Your task to perform on an android device: turn pop-ups on in chrome Image 0: 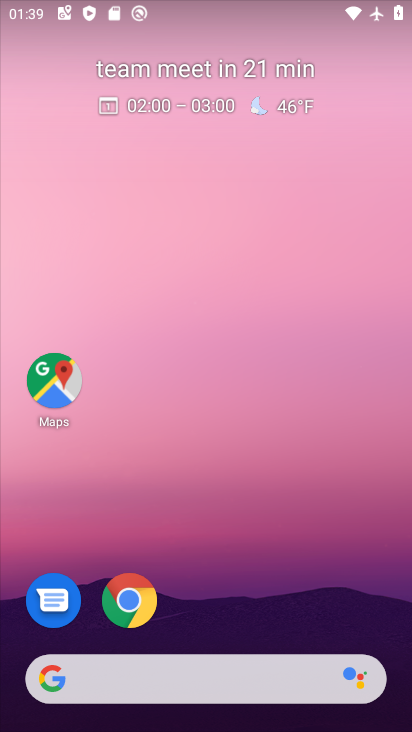
Step 0: drag from (202, 455) to (178, 93)
Your task to perform on an android device: turn pop-ups on in chrome Image 1: 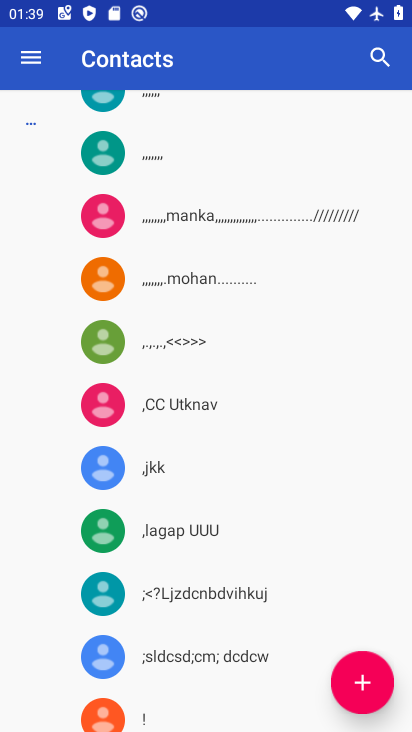
Step 1: press home button
Your task to perform on an android device: turn pop-ups on in chrome Image 2: 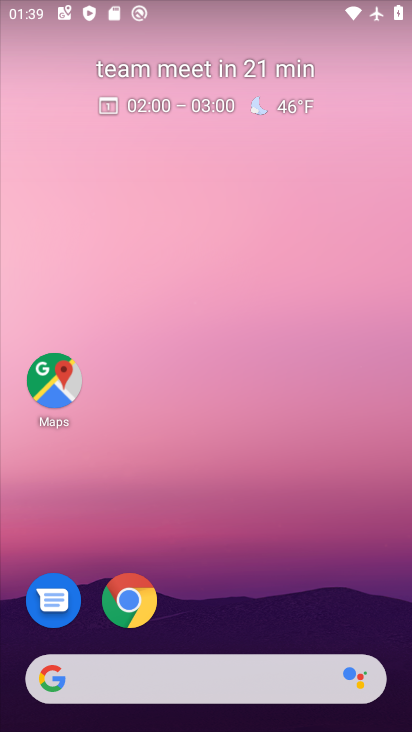
Step 2: click (149, 593)
Your task to perform on an android device: turn pop-ups on in chrome Image 3: 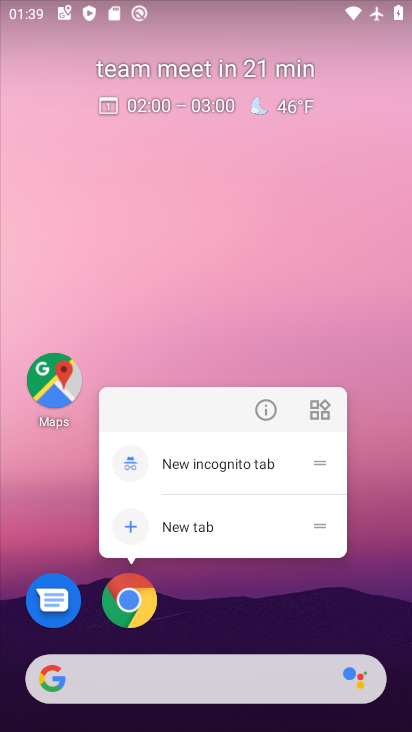
Step 3: click (135, 605)
Your task to perform on an android device: turn pop-ups on in chrome Image 4: 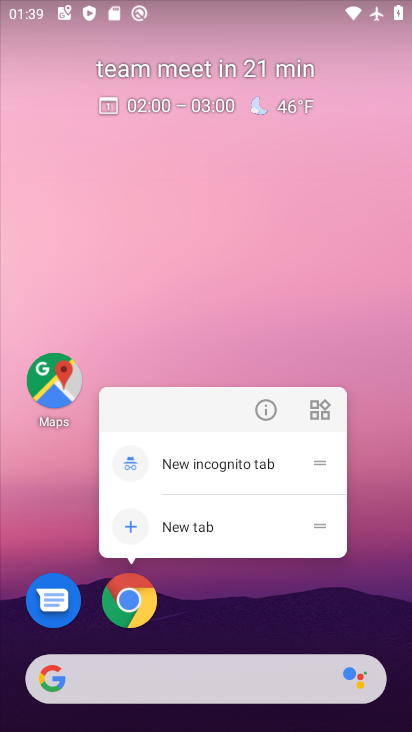
Step 4: click (129, 607)
Your task to perform on an android device: turn pop-ups on in chrome Image 5: 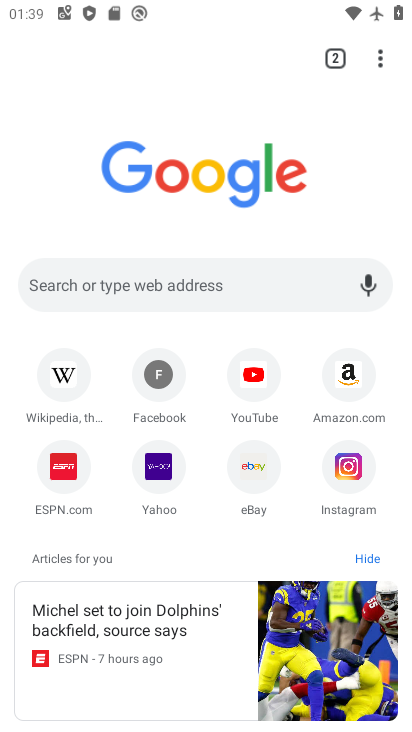
Step 5: drag from (379, 64) to (179, 485)
Your task to perform on an android device: turn pop-ups on in chrome Image 6: 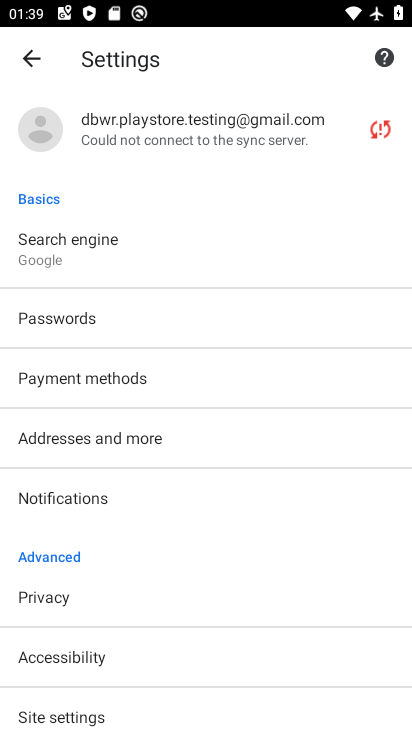
Step 6: drag from (110, 633) to (110, 256)
Your task to perform on an android device: turn pop-ups on in chrome Image 7: 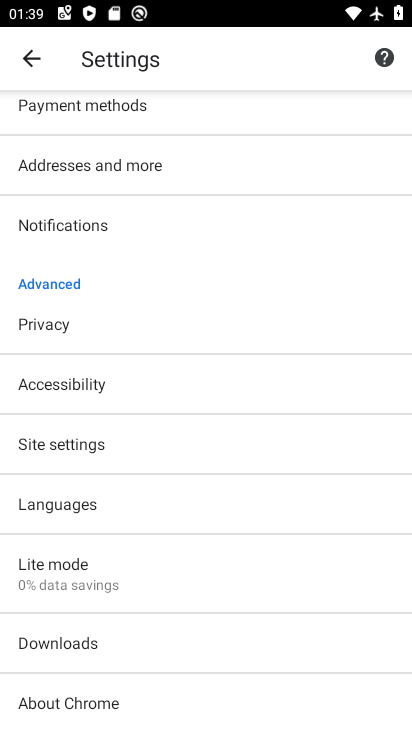
Step 7: click (68, 439)
Your task to perform on an android device: turn pop-ups on in chrome Image 8: 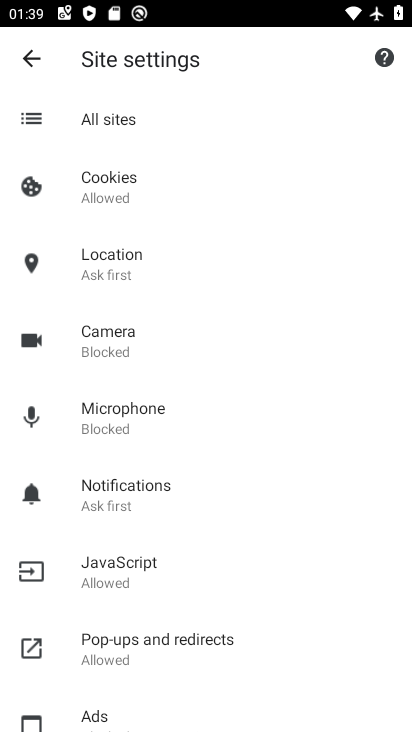
Step 8: click (116, 658)
Your task to perform on an android device: turn pop-ups on in chrome Image 9: 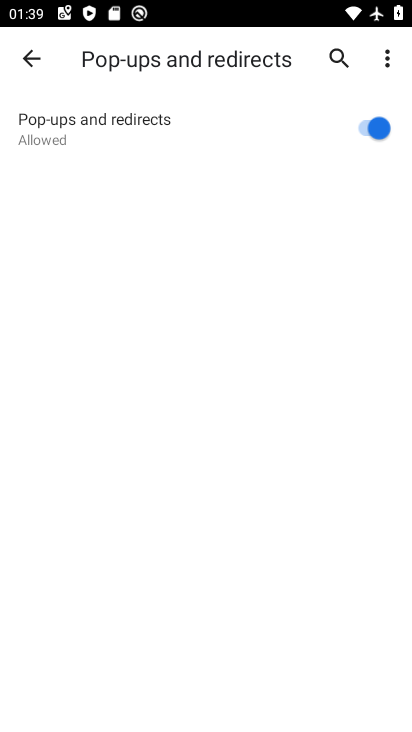
Step 9: task complete